Your task to perform on an android device: open sync settings in chrome Image 0: 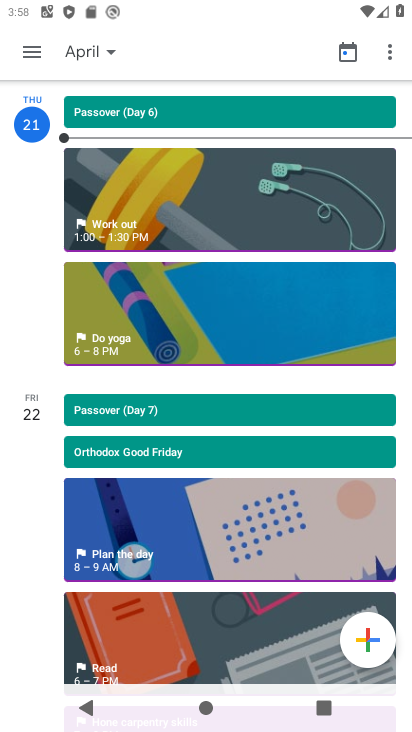
Step 0: press home button
Your task to perform on an android device: open sync settings in chrome Image 1: 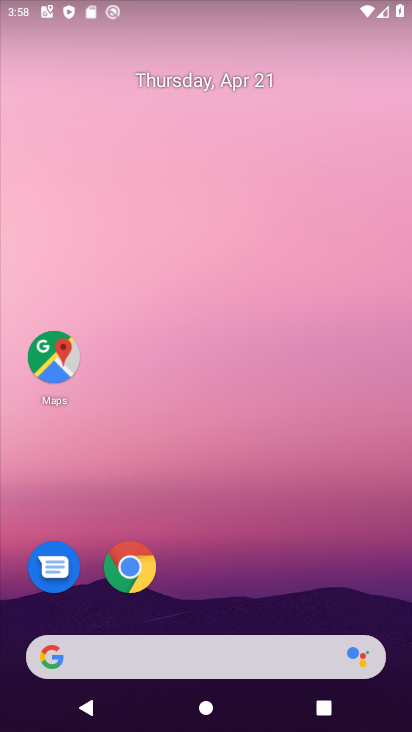
Step 1: click (136, 570)
Your task to perform on an android device: open sync settings in chrome Image 2: 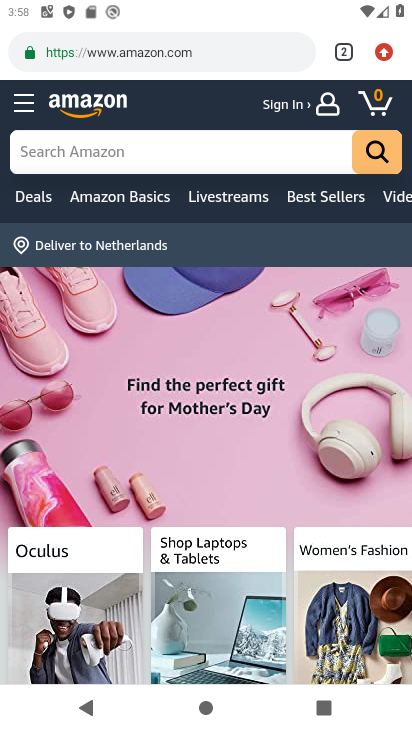
Step 2: drag from (383, 50) to (214, 606)
Your task to perform on an android device: open sync settings in chrome Image 3: 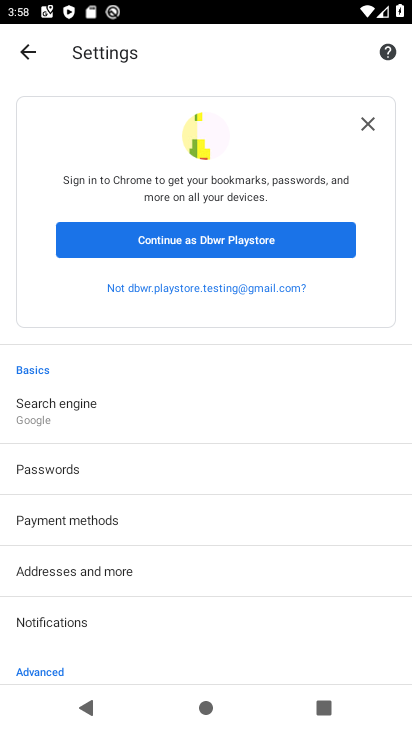
Step 3: drag from (139, 646) to (166, 259)
Your task to perform on an android device: open sync settings in chrome Image 4: 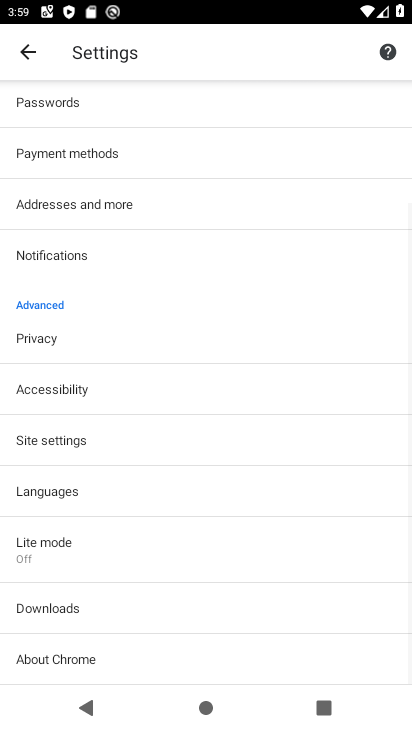
Step 4: drag from (136, 561) to (121, 258)
Your task to perform on an android device: open sync settings in chrome Image 5: 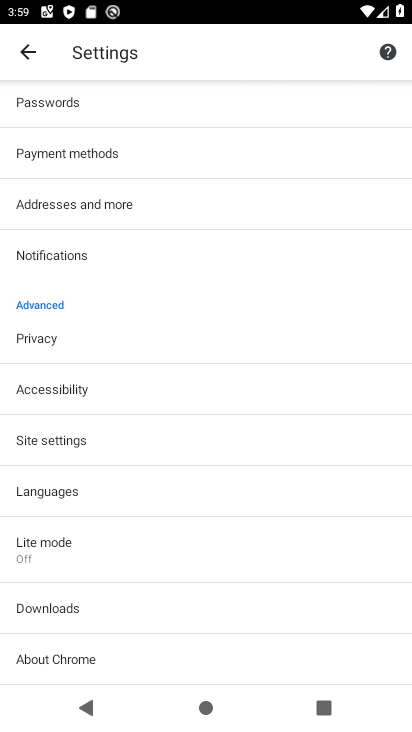
Step 5: click (56, 446)
Your task to perform on an android device: open sync settings in chrome Image 6: 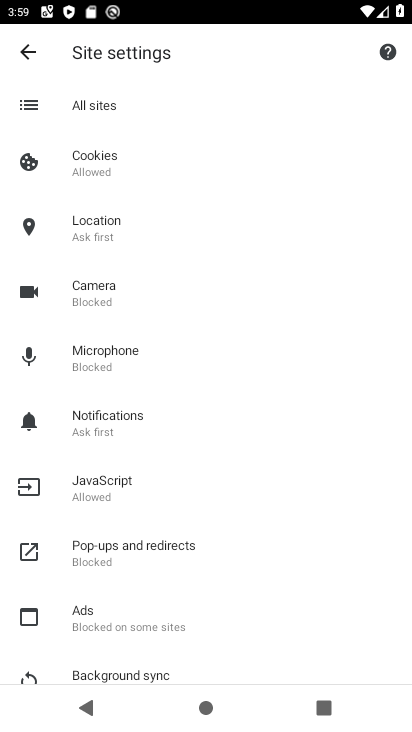
Step 6: drag from (139, 599) to (169, 224)
Your task to perform on an android device: open sync settings in chrome Image 7: 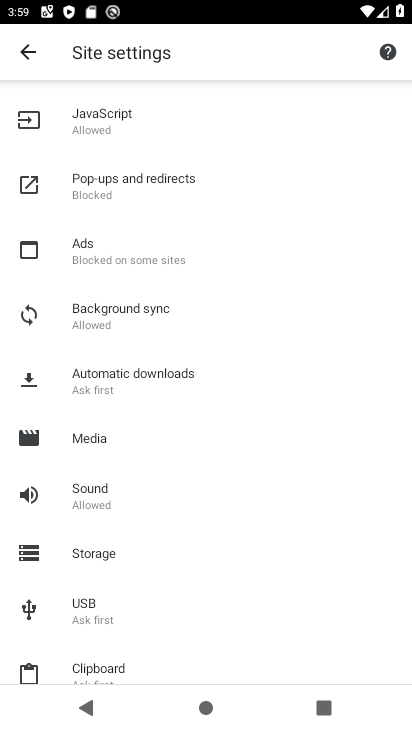
Step 7: click (99, 323)
Your task to perform on an android device: open sync settings in chrome Image 8: 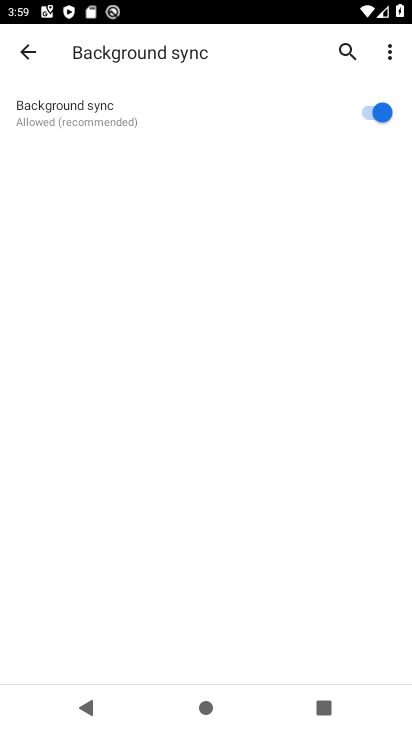
Step 8: task complete